Your task to perform on an android device: Search for vegetarian restaurants on Maps Image 0: 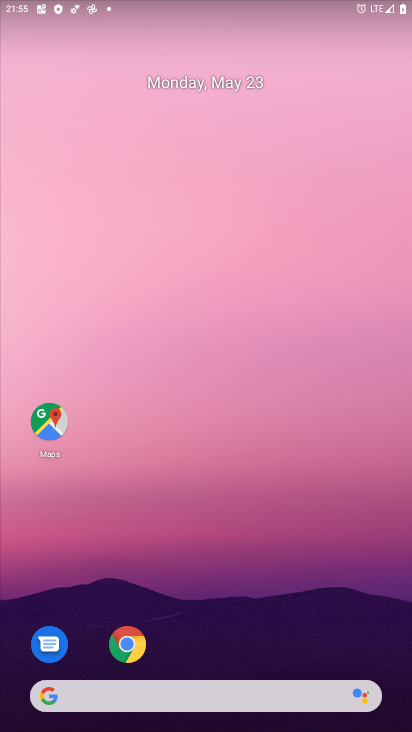
Step 0: click (56, 404)
Your task to perform on an android device: Search for vegetarian restaurants on Maps Image 1: 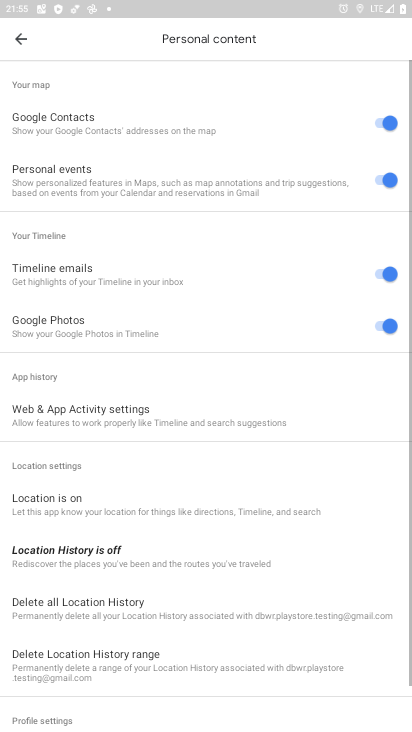
Step 1: click (18, 43)
Your task to perform on an android device: Search for vegetarian restaurants on Maps Image 2: 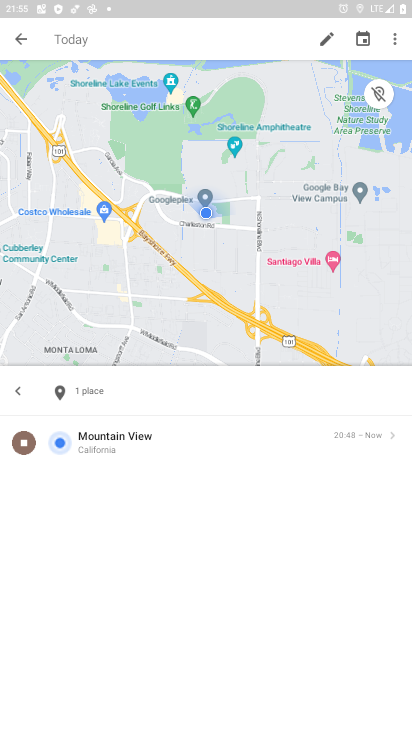
Step 2: click (19, 36)
Your task to perform on an android device: Search for vegetarian restaurants on Maps Image 3: 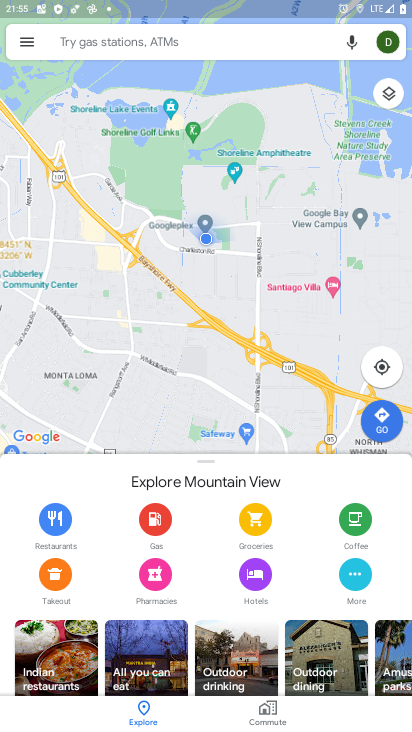
Step 3: click (167, 41)
Your task to perform on an android device: Search for vegetarian restaurants on Maps Image 4: 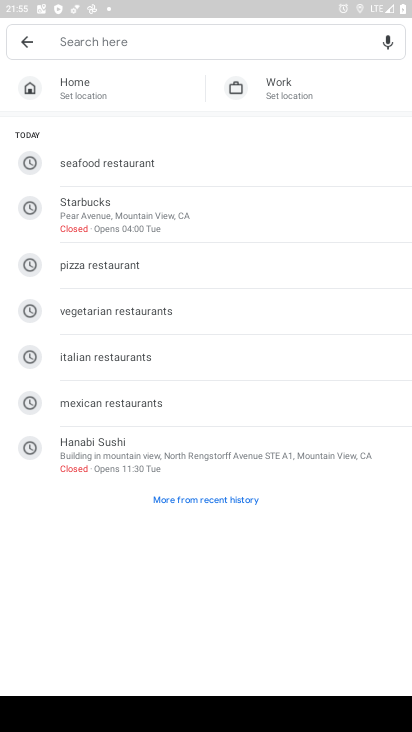
Step 4: click (130, 310)
Your task to perform on an android device: Search for vegetarian restaurants on Maps Image 5: 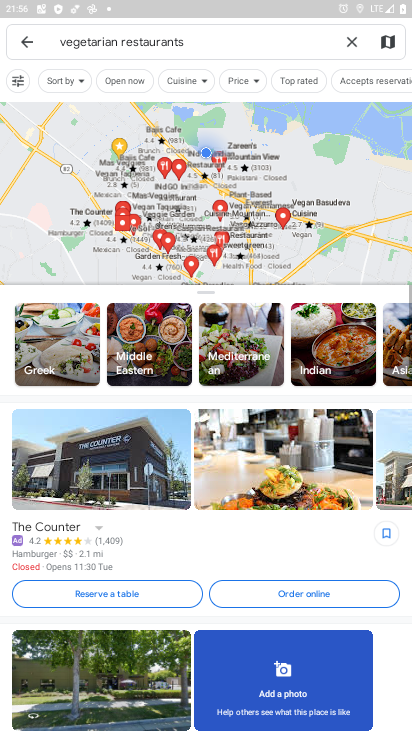
Step 5: task complete